Your task to perform on an android device: turn pop-ups on in chrome Image 0: 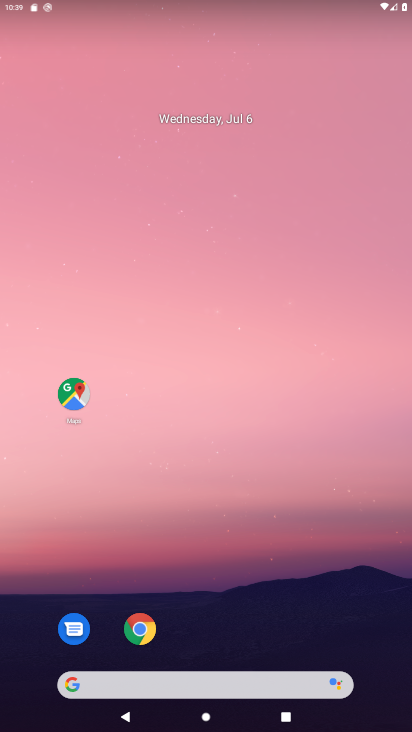
Step 0: drag from (219, 647) to (246, 31)
Your task to perform on an android device: turn pop-ups on in chrome Image 1: 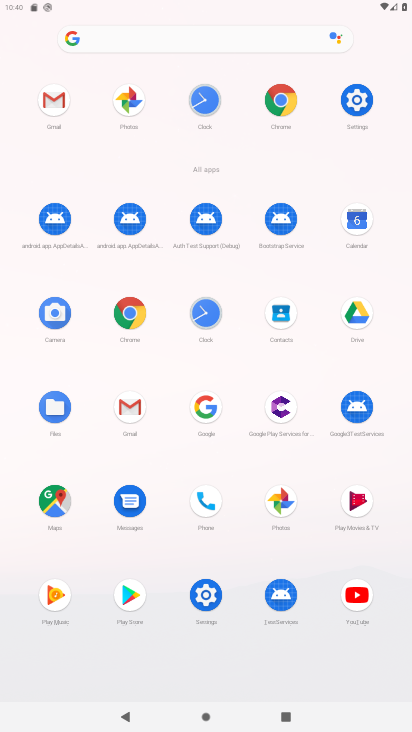
Step 1: click (276, 92)
Your task to perform on an android device: turn pop-ups on in chrome Image 2: 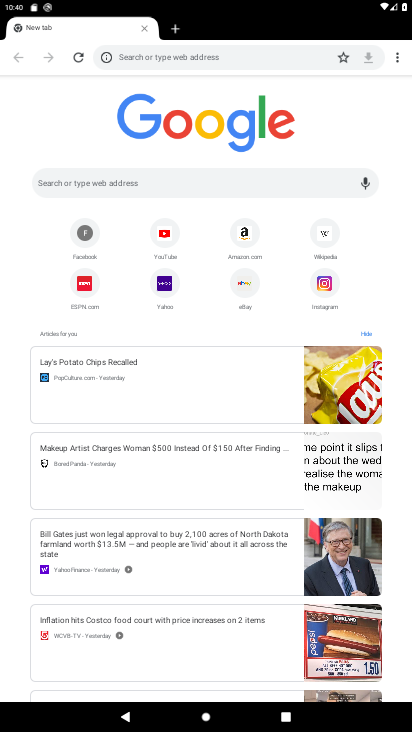
Step 2: click (398, 57)
Your task to perform on an android device: turn pop-ups on in chrome Image 3: 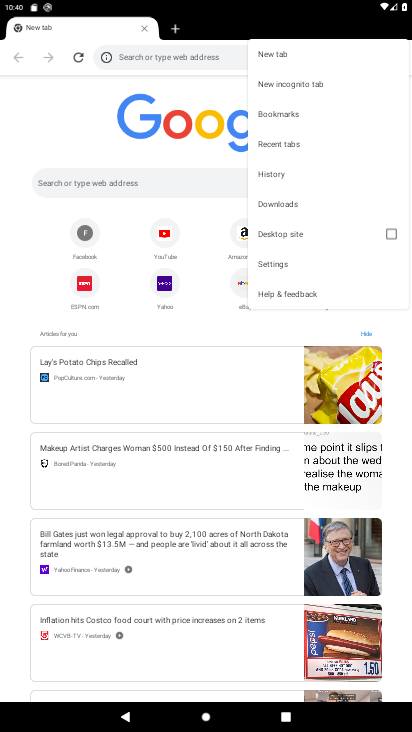
Step 3: click (291, 265)
Your task to perform on an android device: turn pop-ups on in chrome Image 4: 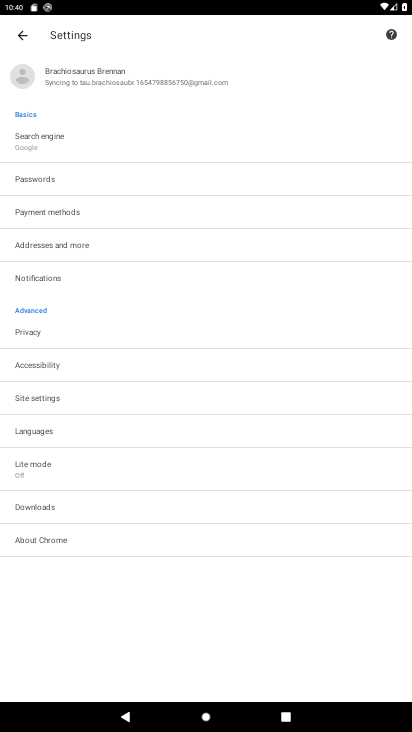
Step 4: click (74, 400)
Your task to perform on an android device: turn pop-ups on in chrome Image 5: 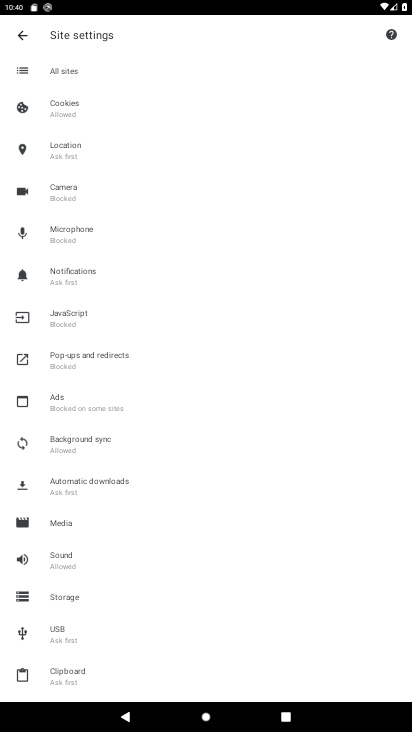
Step 5: click (91, 356)
Your task to perform on an android device: turn pop-ups on in chrome Image 6: 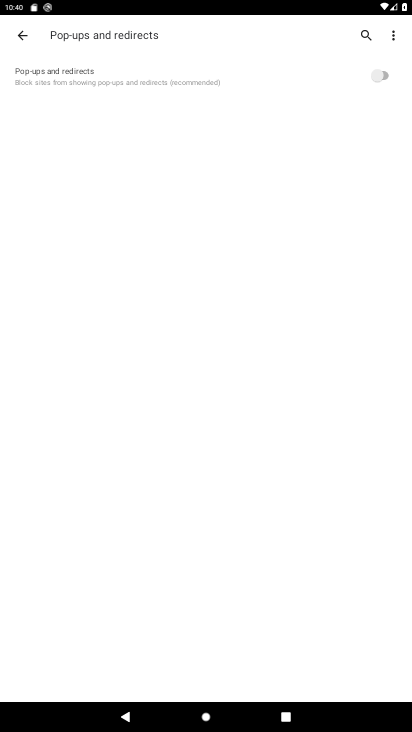
Step 6: click (377, 77)
Your task to perform on an android device: turn pop-ups on in chrome Image 7: 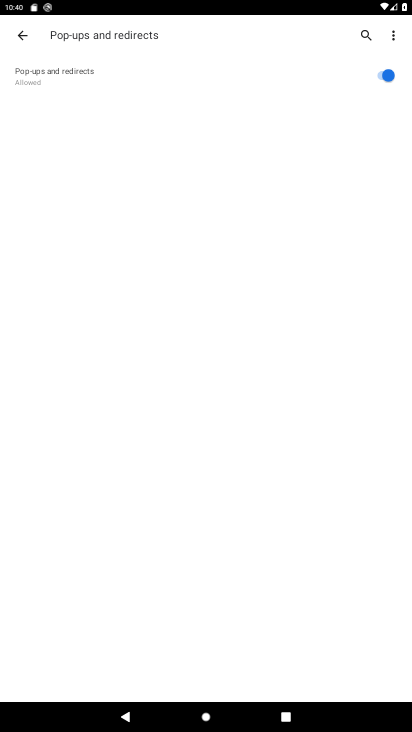
Step 7: task complete